Your task to perform on an android device: turn on the 12-hour format for clock Image 0: 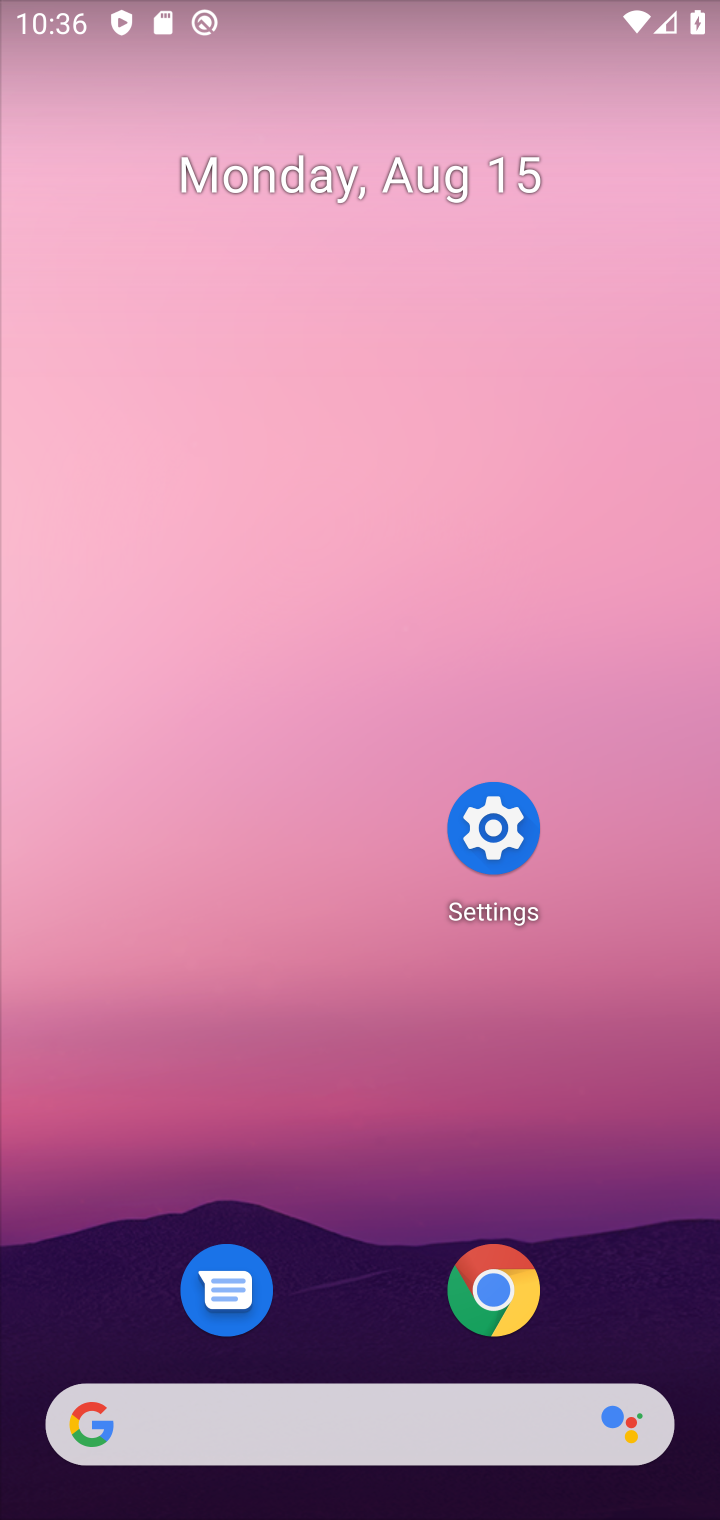
Step 0: press home button
Your task to perform on an android device: turn on the 12-hour format for clock Image 1: 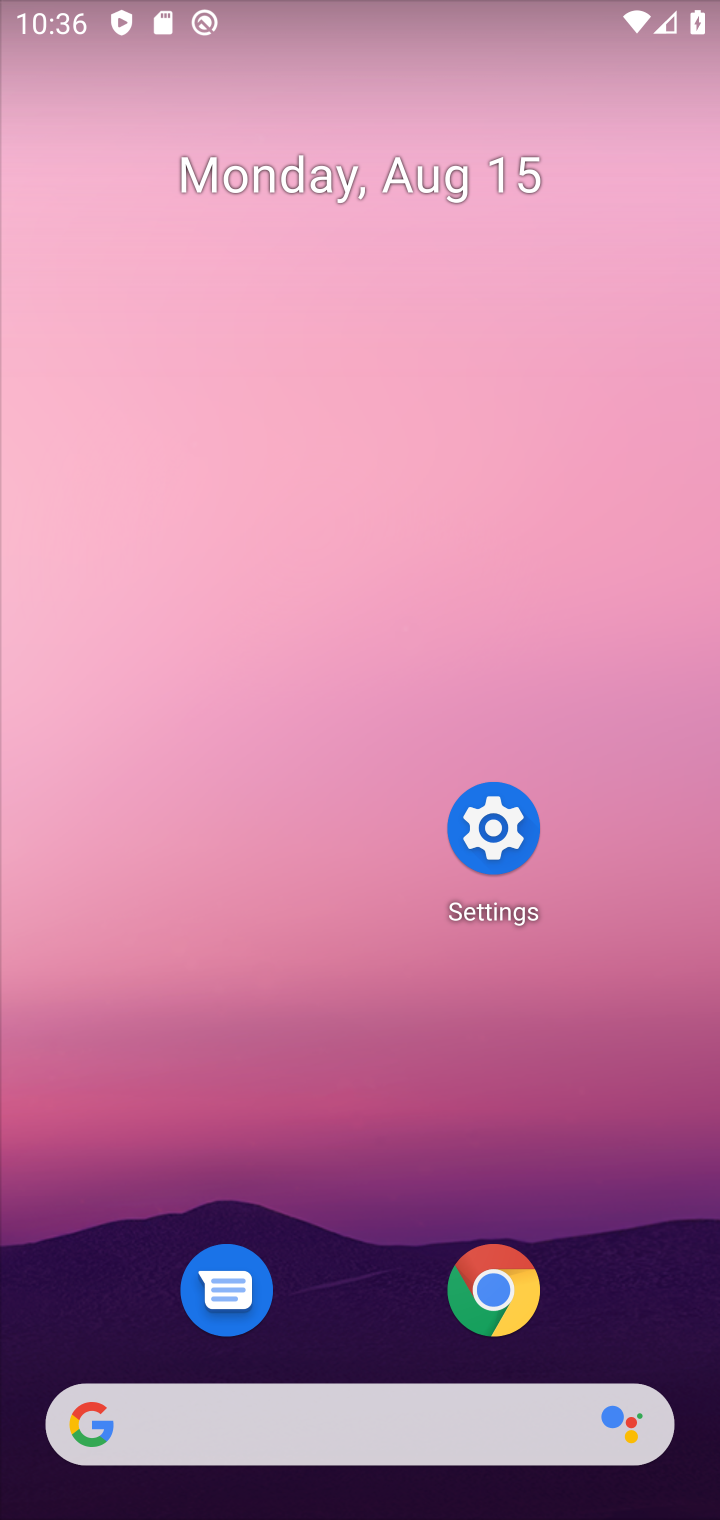
Step 1: drag from (402, 1338) to (570, 202)
Your task to perform on an android device: turn on the 12-hour format for clock Image 2: 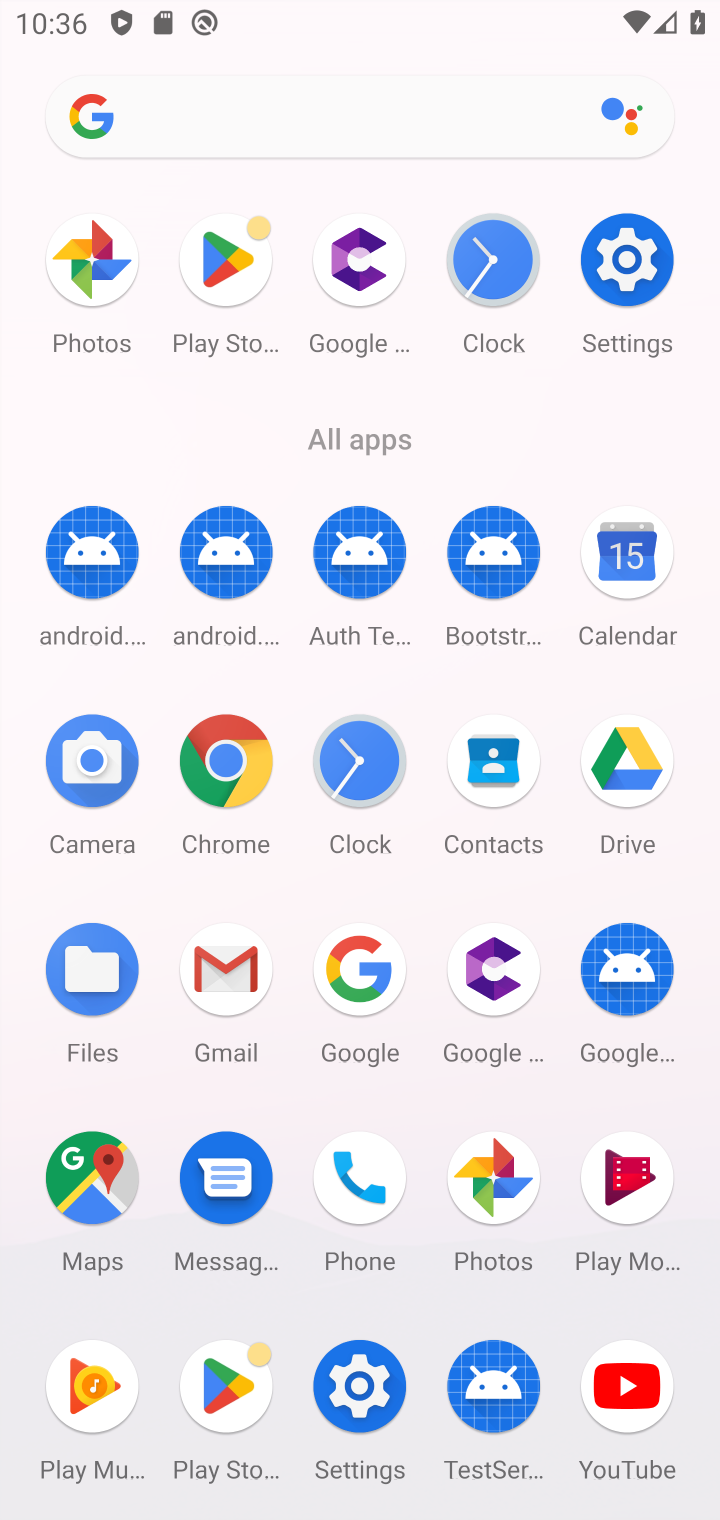
Step 2: click (361, 770)
Your task to perform on an android device: turn on the 12-hour format for clock Image 3: 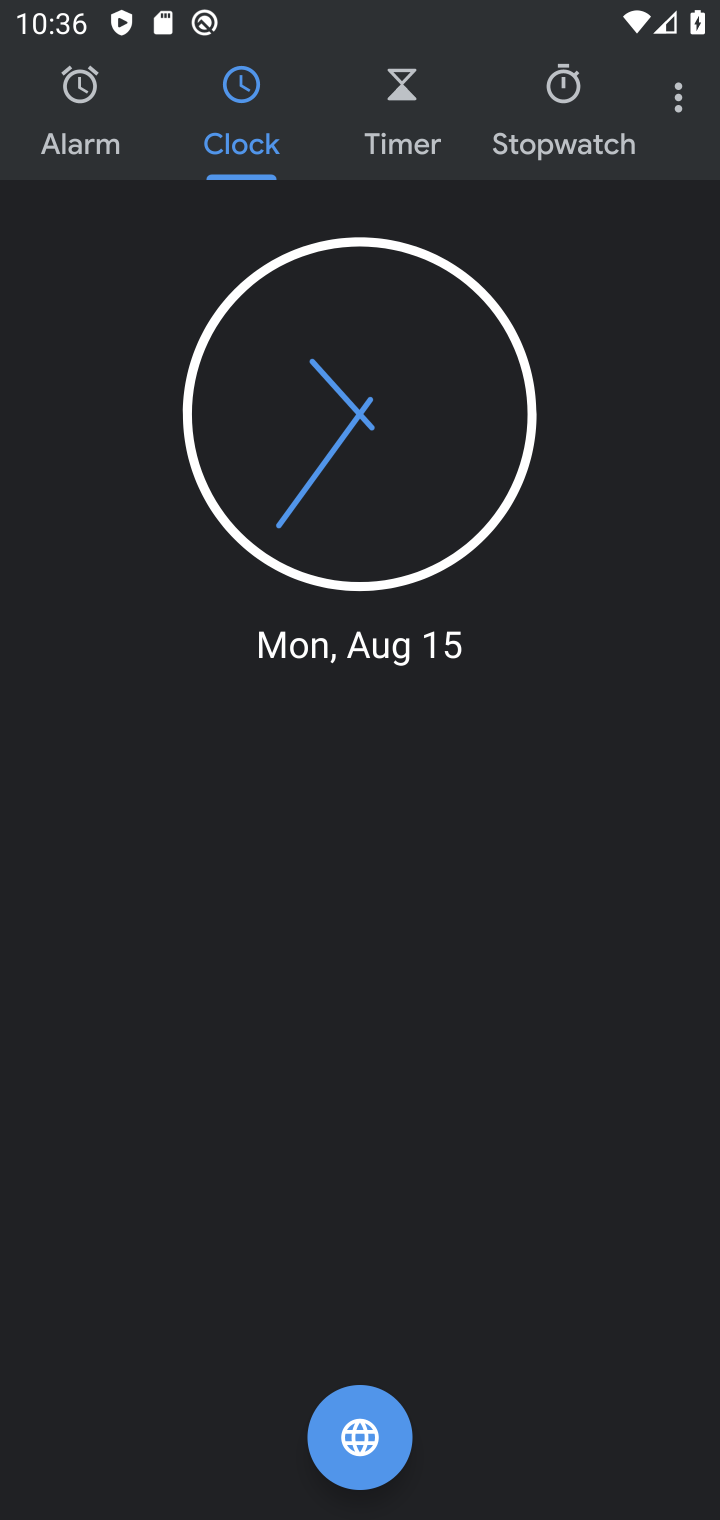
Step 3: click (671, 99)
Your task to perform on an android device: turn on the 12-hour format for clock Image 4: 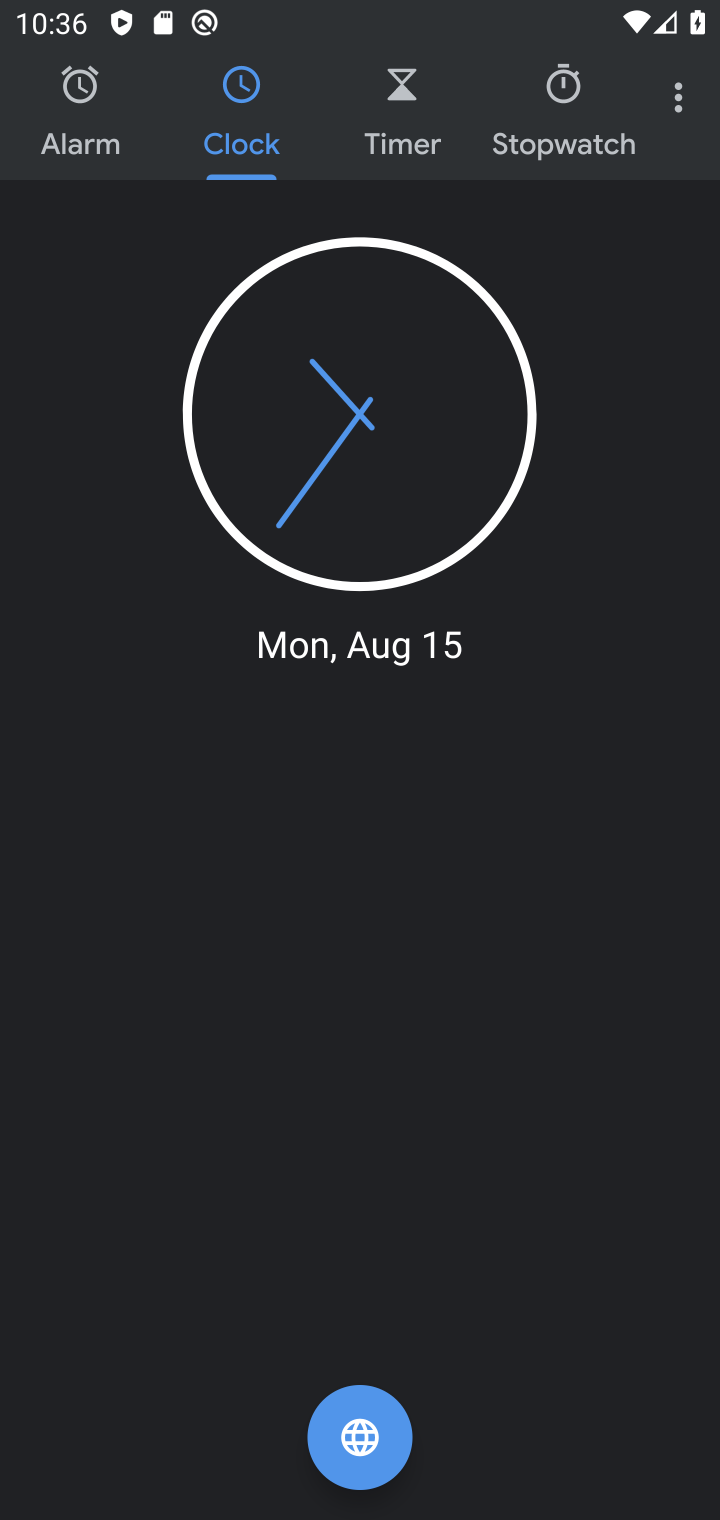
Step 4: click (674, 97)
Your task to perform on an android device: turn on the 12-hour format for clock Image 5: 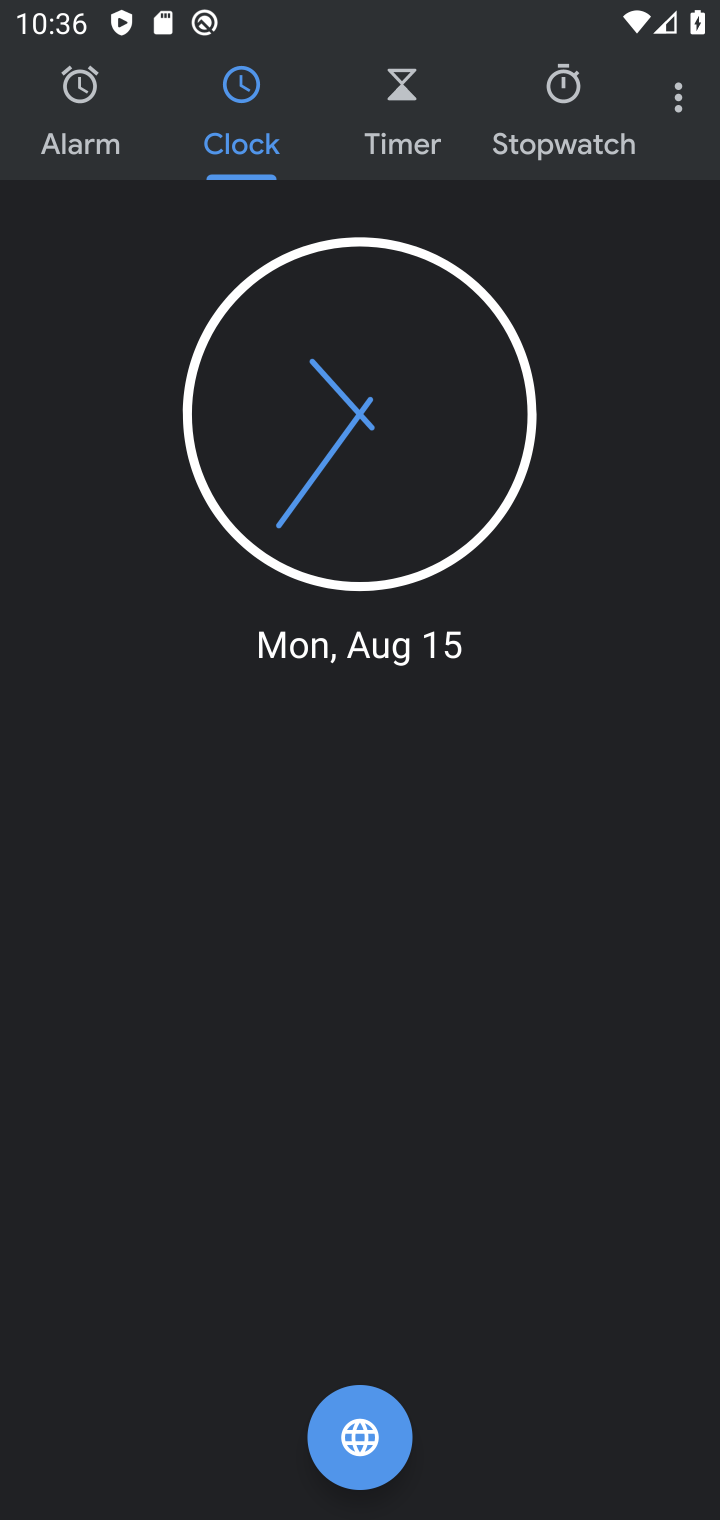
Step 5: click (674, 97)
Your task to perform on an android device: turn on the 12-hour format for clock Image 6: 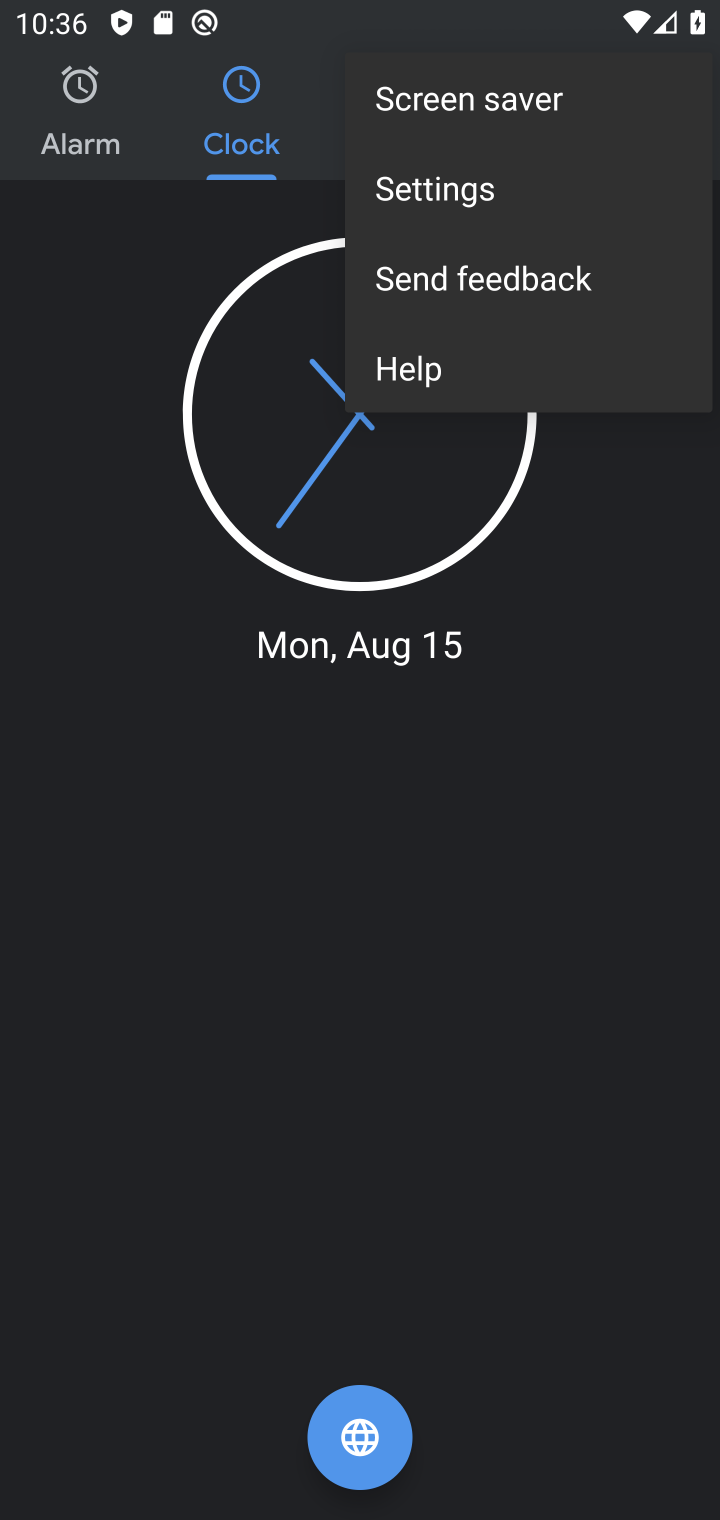
Step 6: click (448, 188)
Your task to perform on an android device: turn on the 12-hour format for clock Image 7: 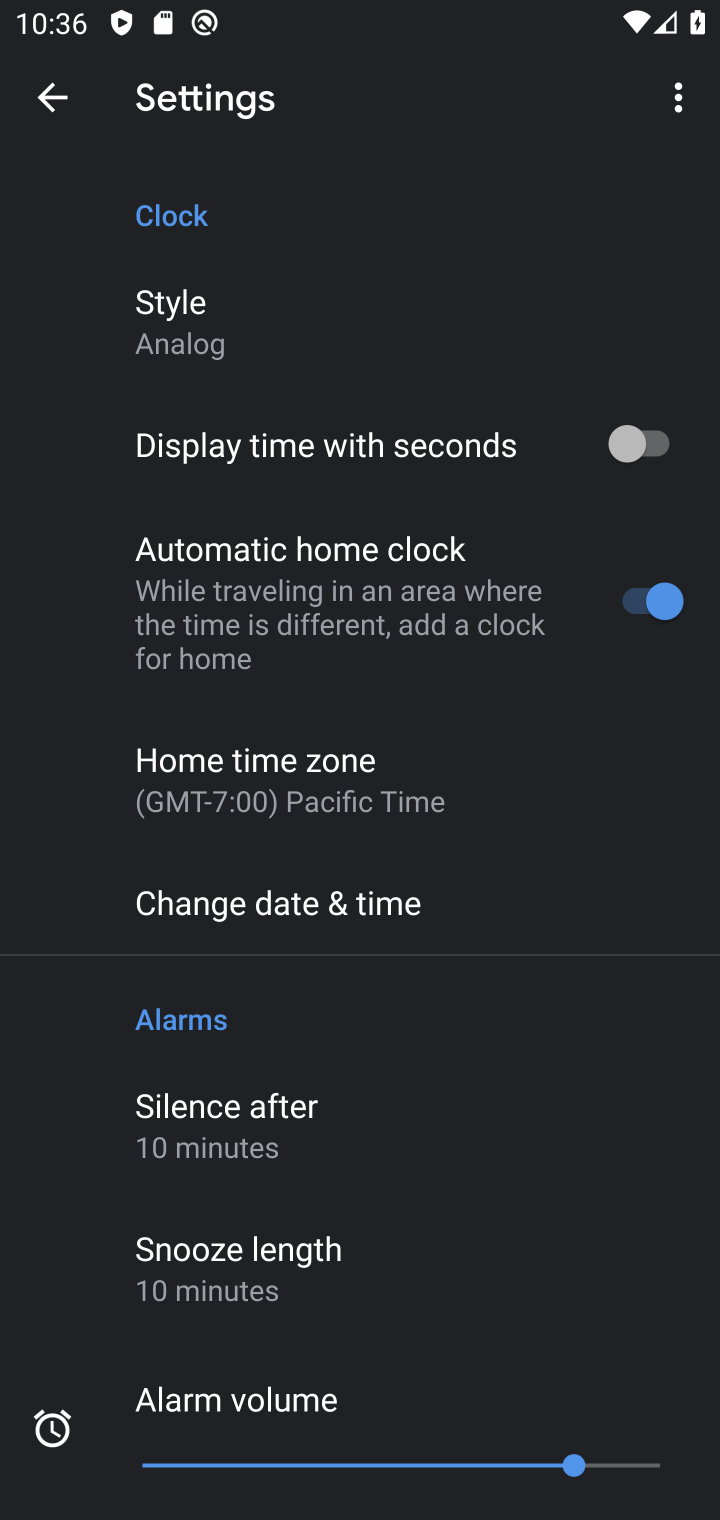
Step 7: click (240, 891)
Your task to perform on an android device: turn on the 12-hour format for clock Image 8: 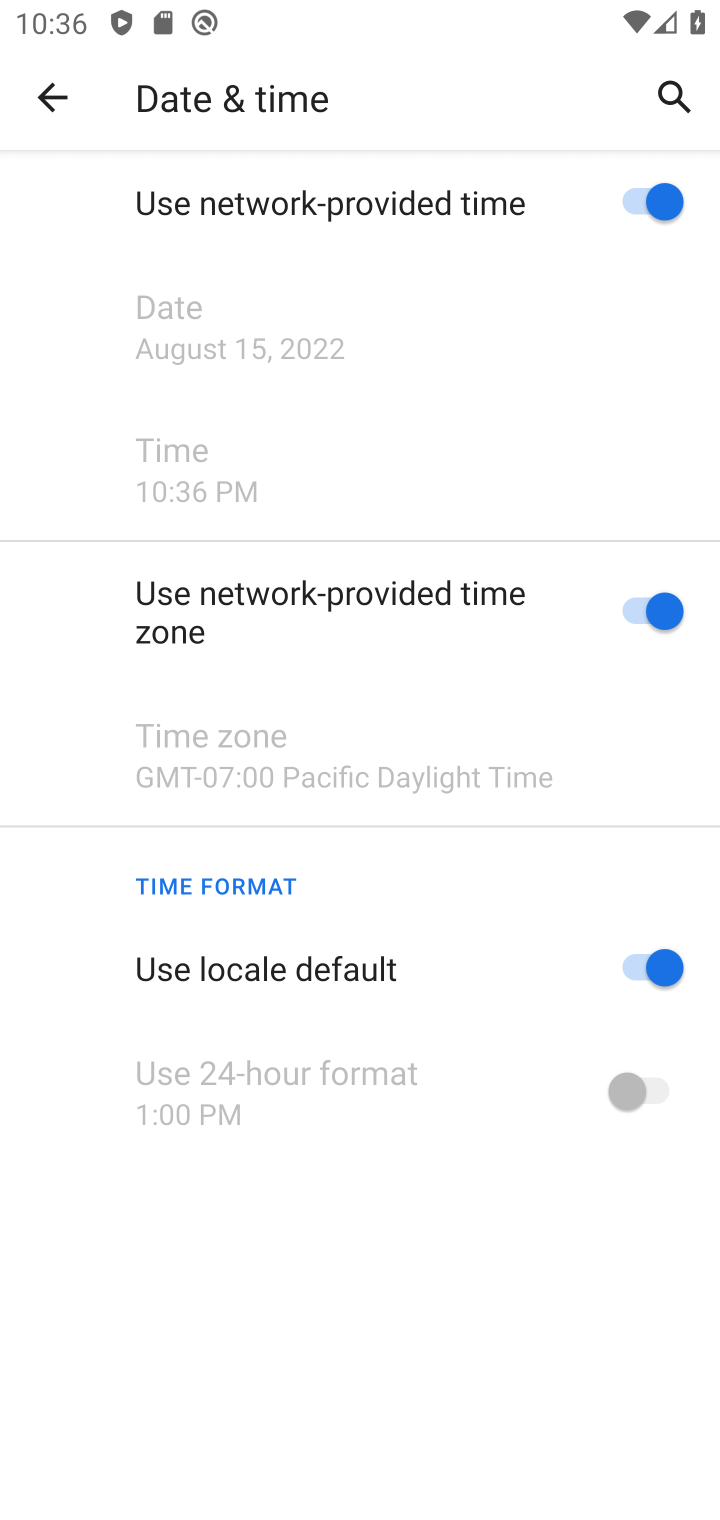
Step 8: task complete